Your task to perform on an android device: Add "amazon basics triple a" to the cart on walmart.com Image 0: 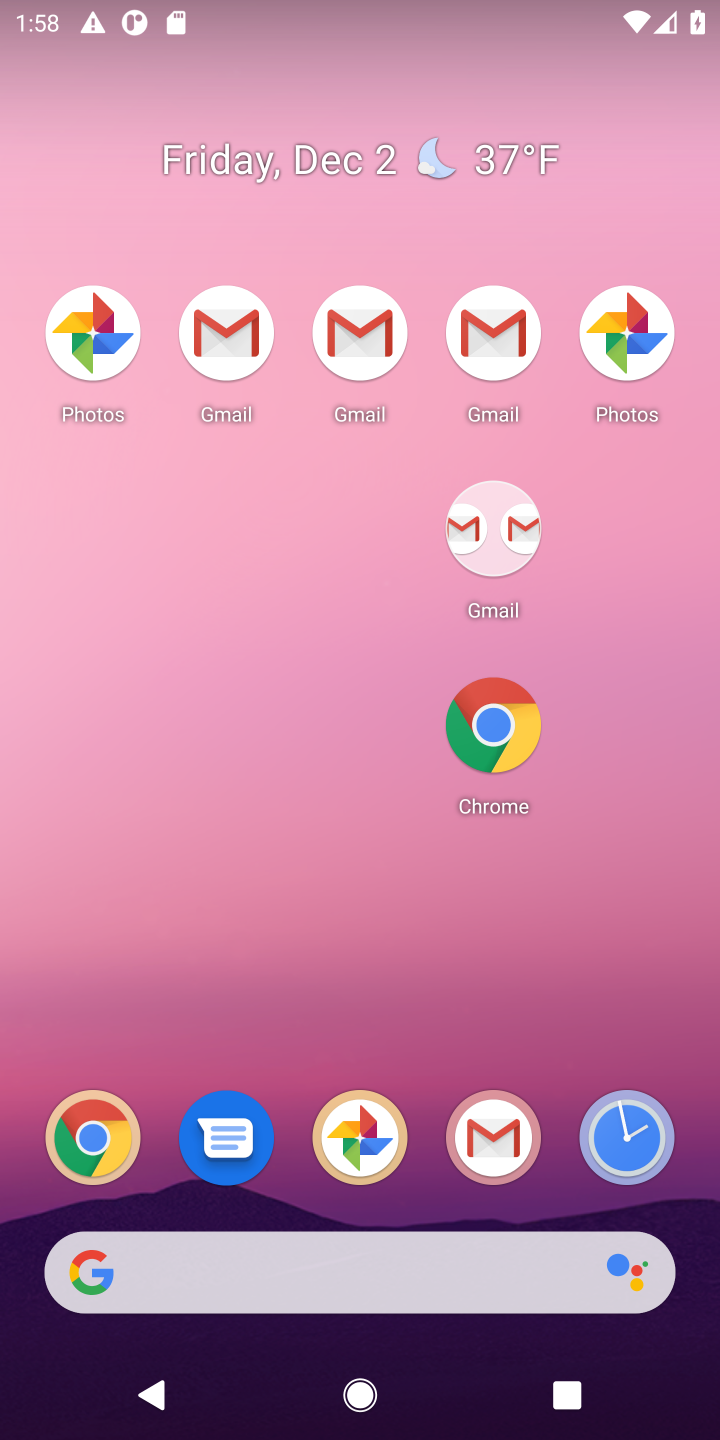
Step 0: click (324, 1095)
Your task to perform on an android device: Add "amazon basics triple a" to the cart on walmart.com Image 1: 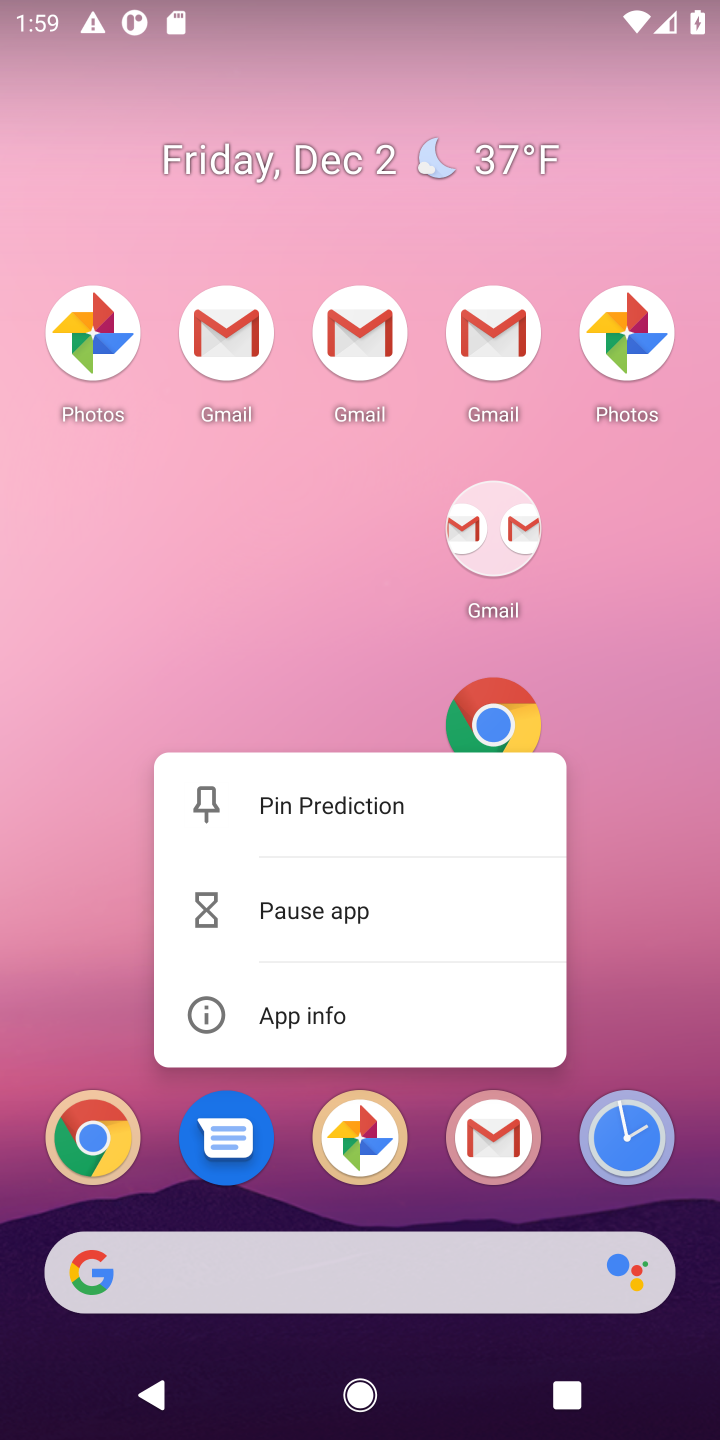
Step 1: click (95, 721)
Your task to perform on an android device: Add "amazon basics triple a" to the cart on walmart.com Image 2: 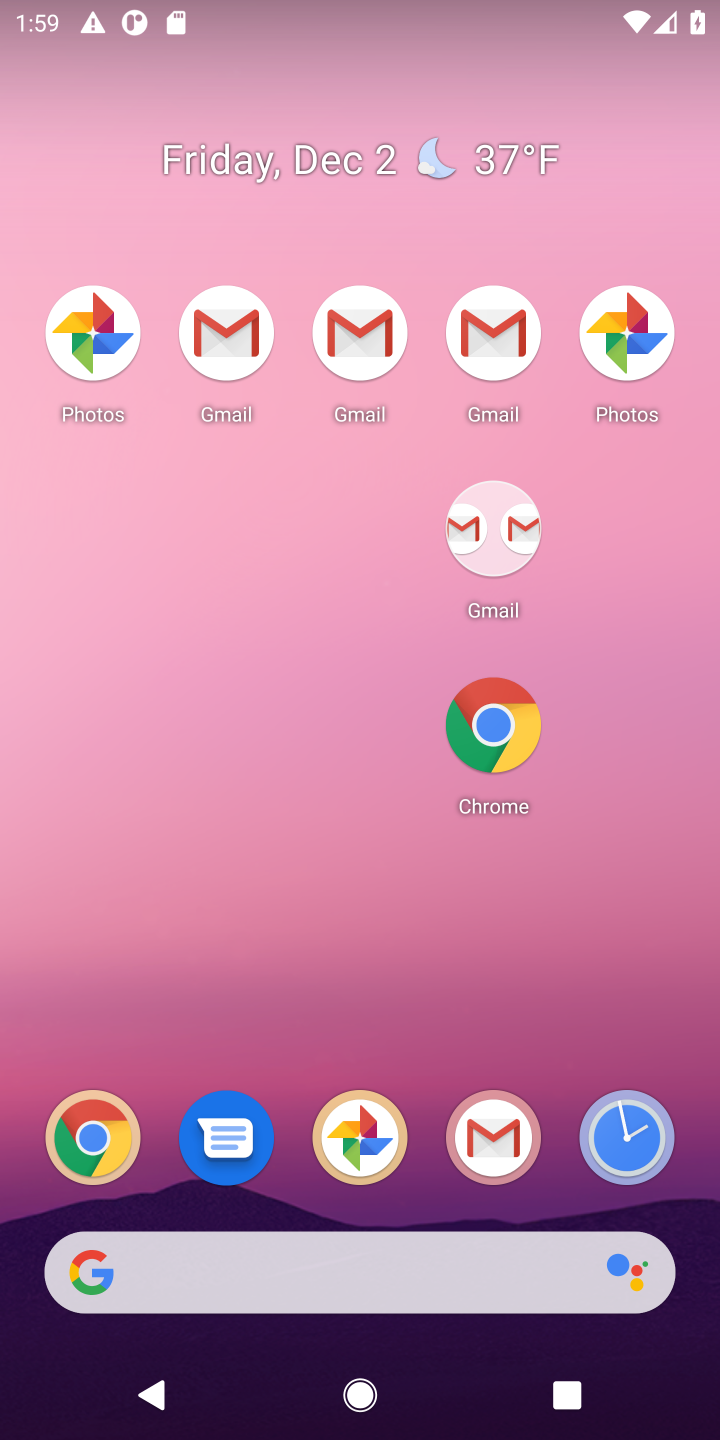
Step 2: drag from (217, 956) to (299, 261)
Your task to perform on an android device: Add "amazon basics triple a" to the cart on walmart.com Image 3: 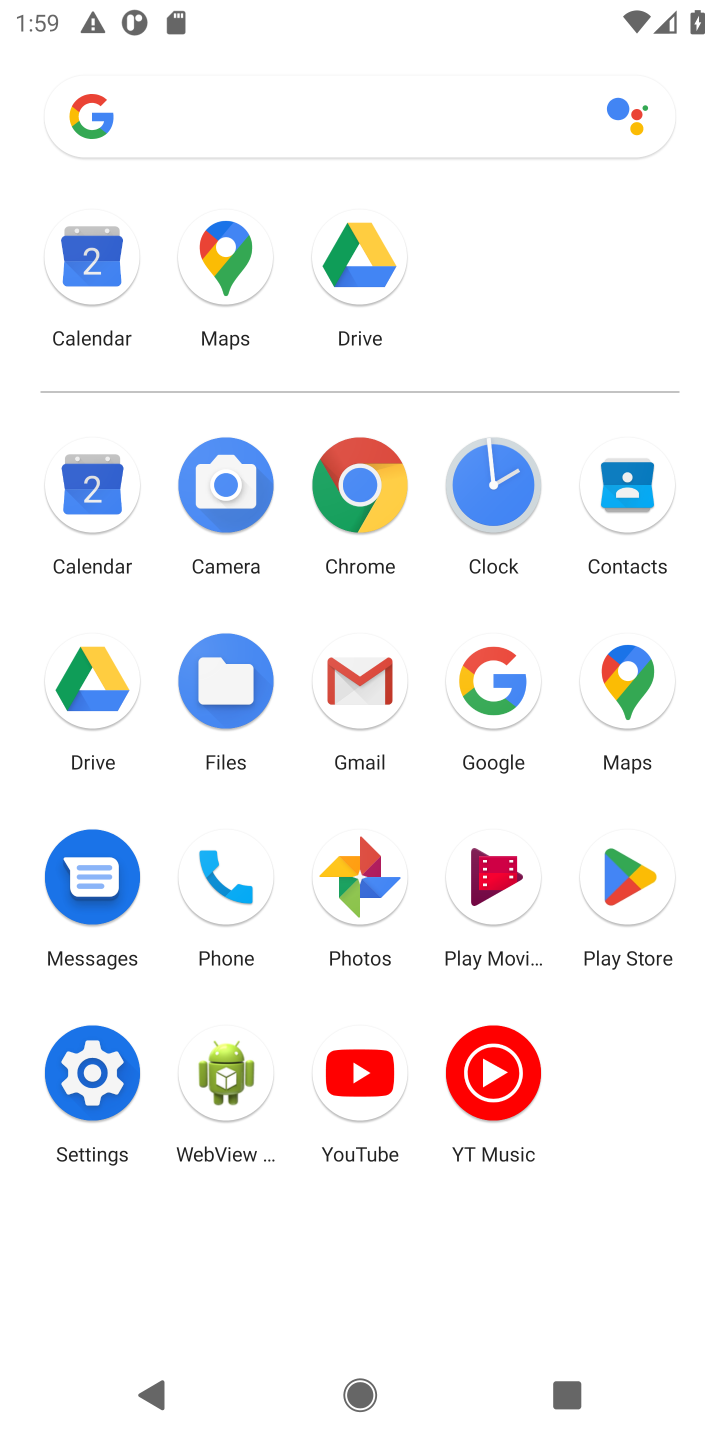
Step 3: click (481, 693)
Your task to perform on an android device: Add "amazon basics triple a" to the cart on walmart.com Image 4: 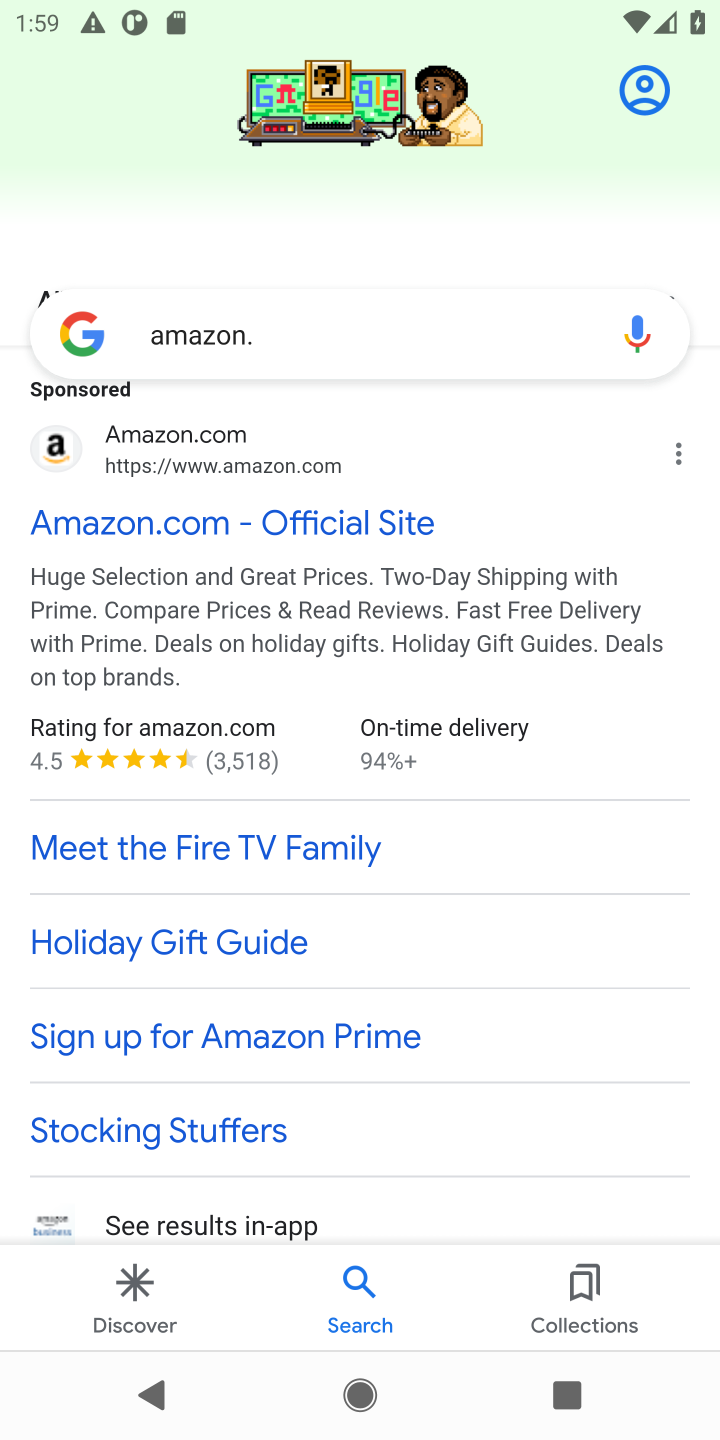
Step 4: click (390, 359)
Your task to perform on an android device: Add "amazon basics triple a" to the cart on walmart.com Image 5: 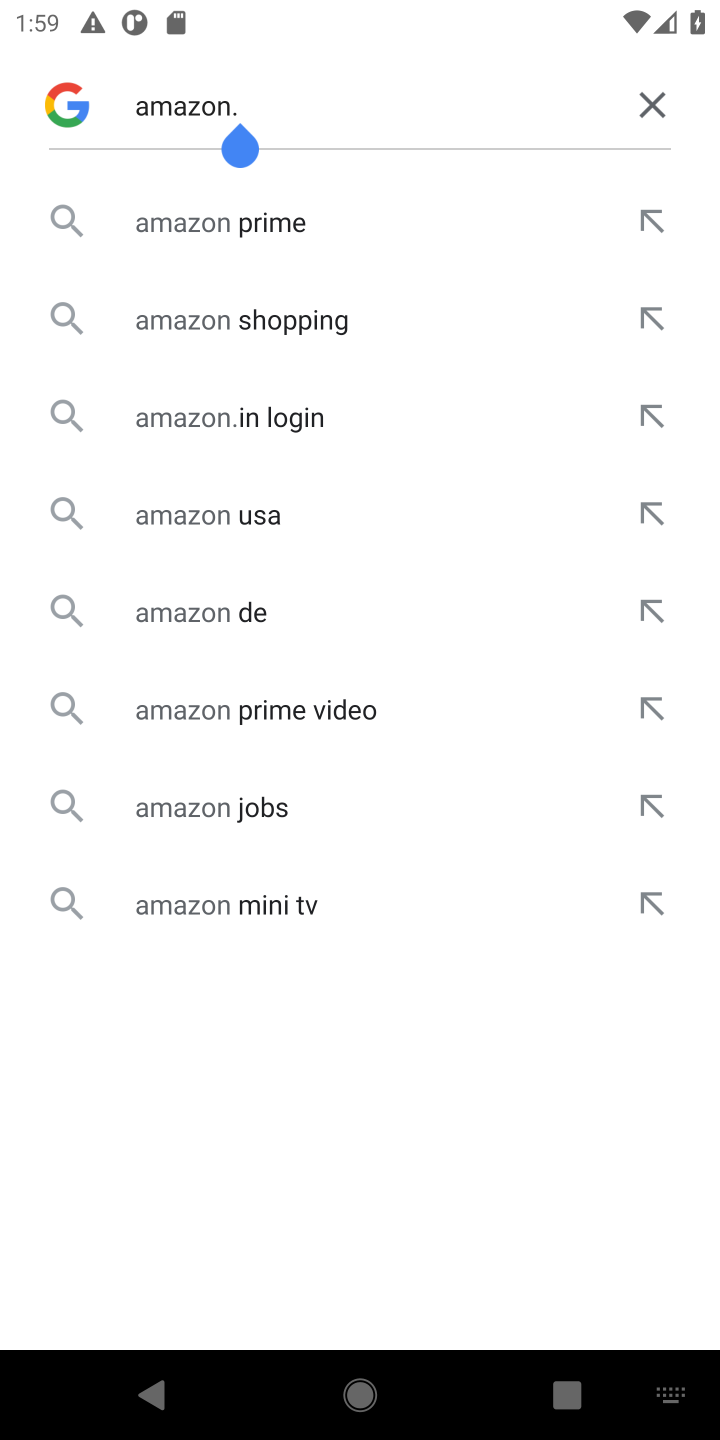
Step 5: click (654, 97)
Your task to perform on an android device: Add "amazon basics triple a" to the cart on walmart.com Image 6: 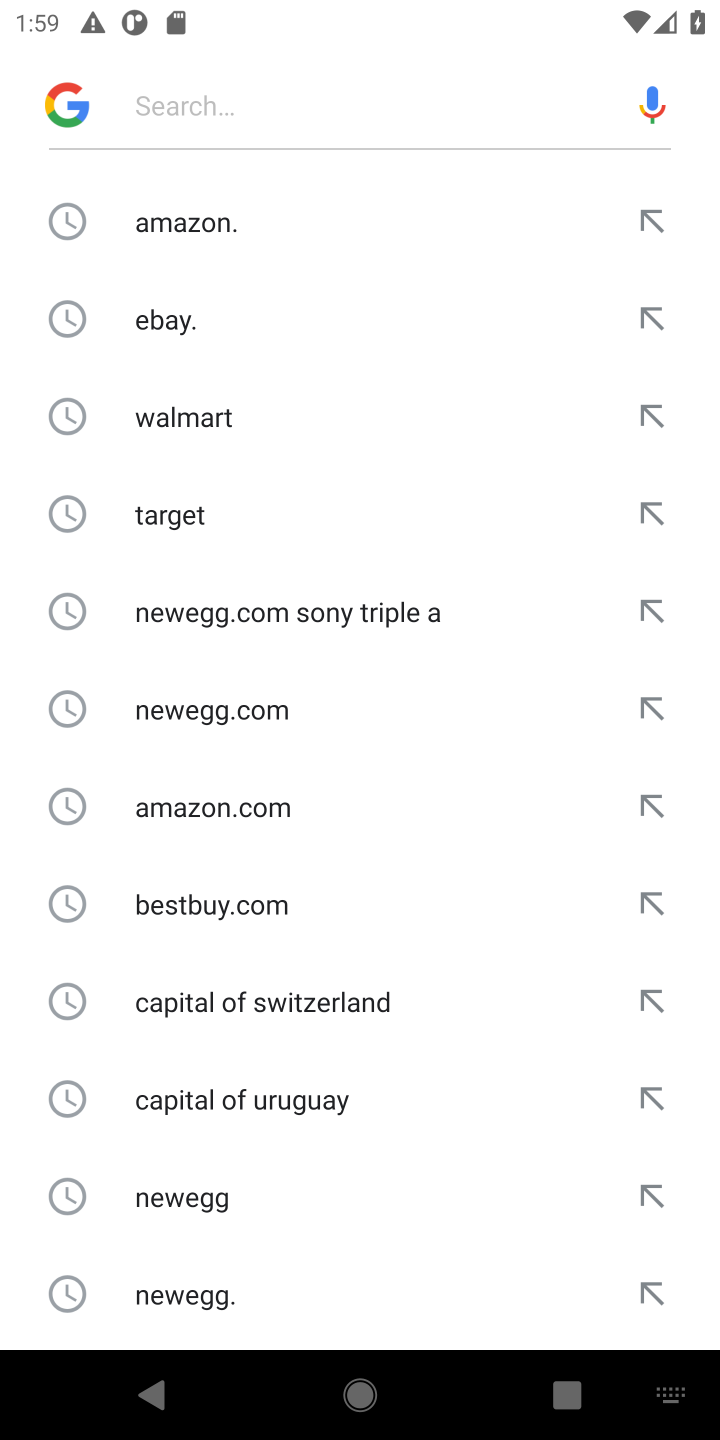
Step 6: type "walmart.com"
Your task to perform on an android device: Add "amazon basics triple a" to the cart on walmart.com Image 7: 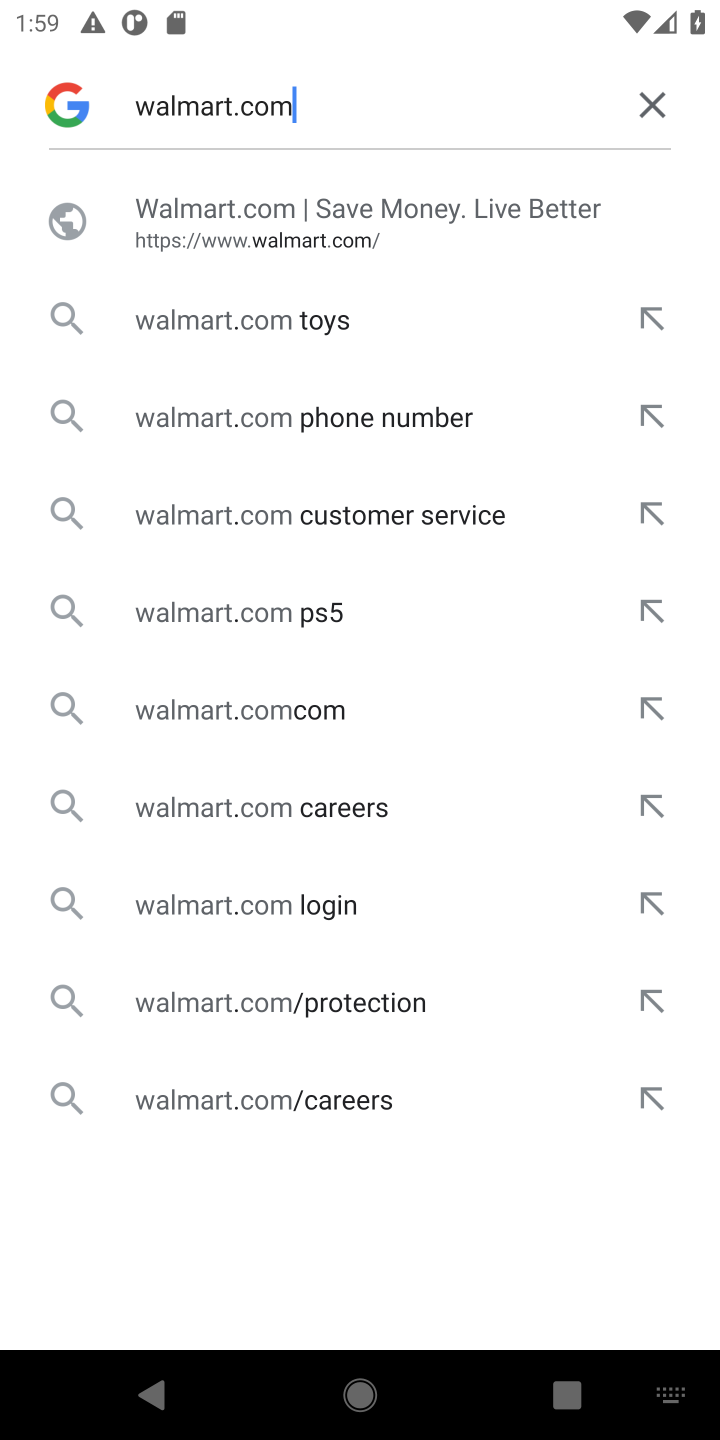
Step 7: click (343, 224)
Your task to perform on an android device: Add "amazon basics triple a" to the cart on walmart.com Image 8: 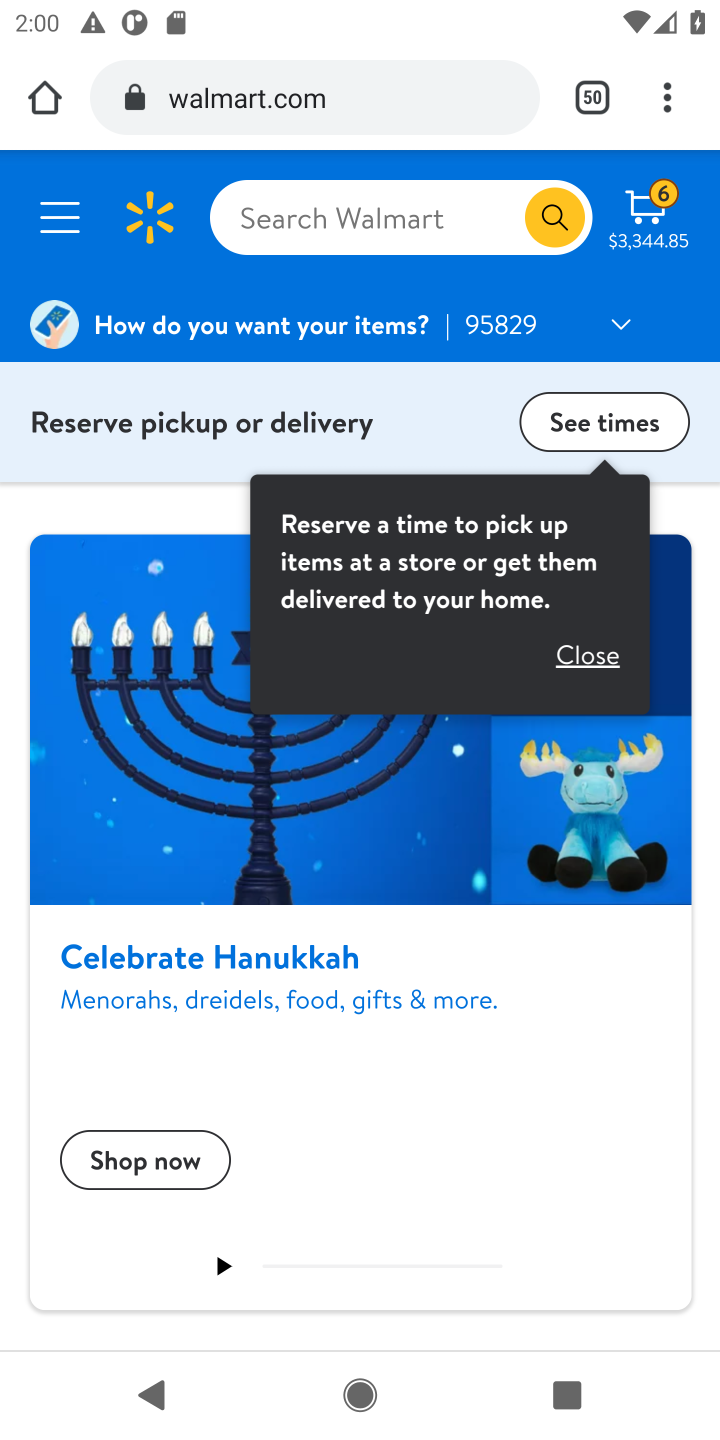
Step 8: click (456, 230)
Your task to perform on an android device: Add "amazon basics triple a" to the cart on walmart.com Image 9: 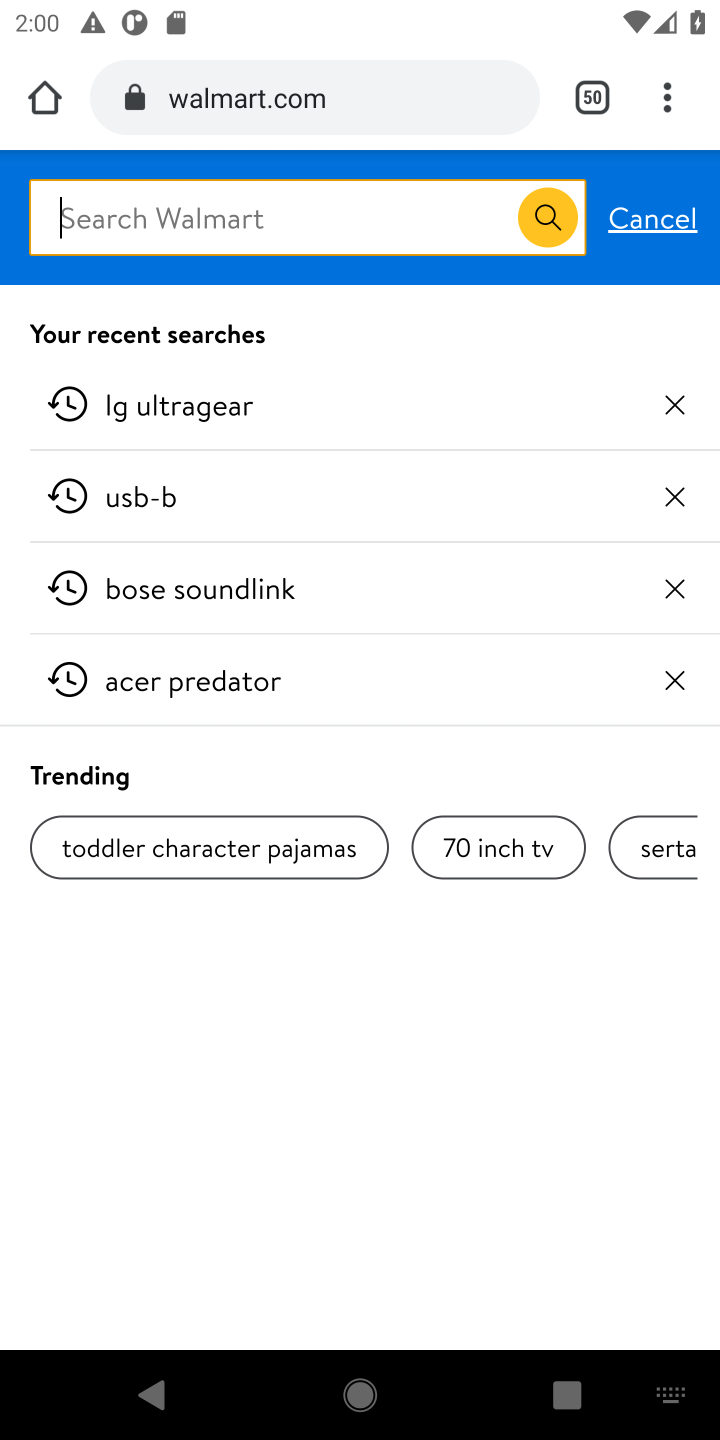
Step 9: type "amazon basics triple a"
Your task to perform on an android device: Add "amazon basics triple a" to the cart on walmart.com Image 10: 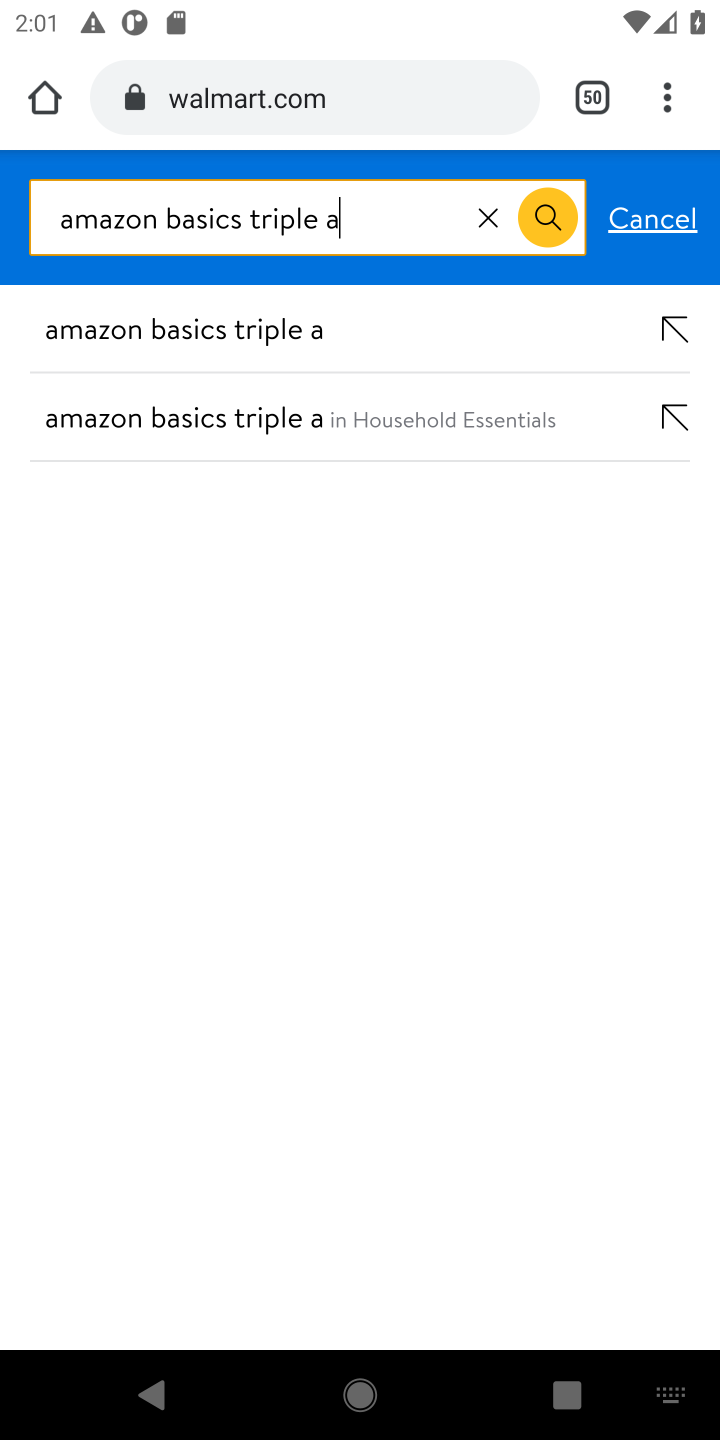
Step 10: click (314, 320)
Your task to perform on an android device: Add "amazon basics triple a" to the cart on walmart.com Image 11: 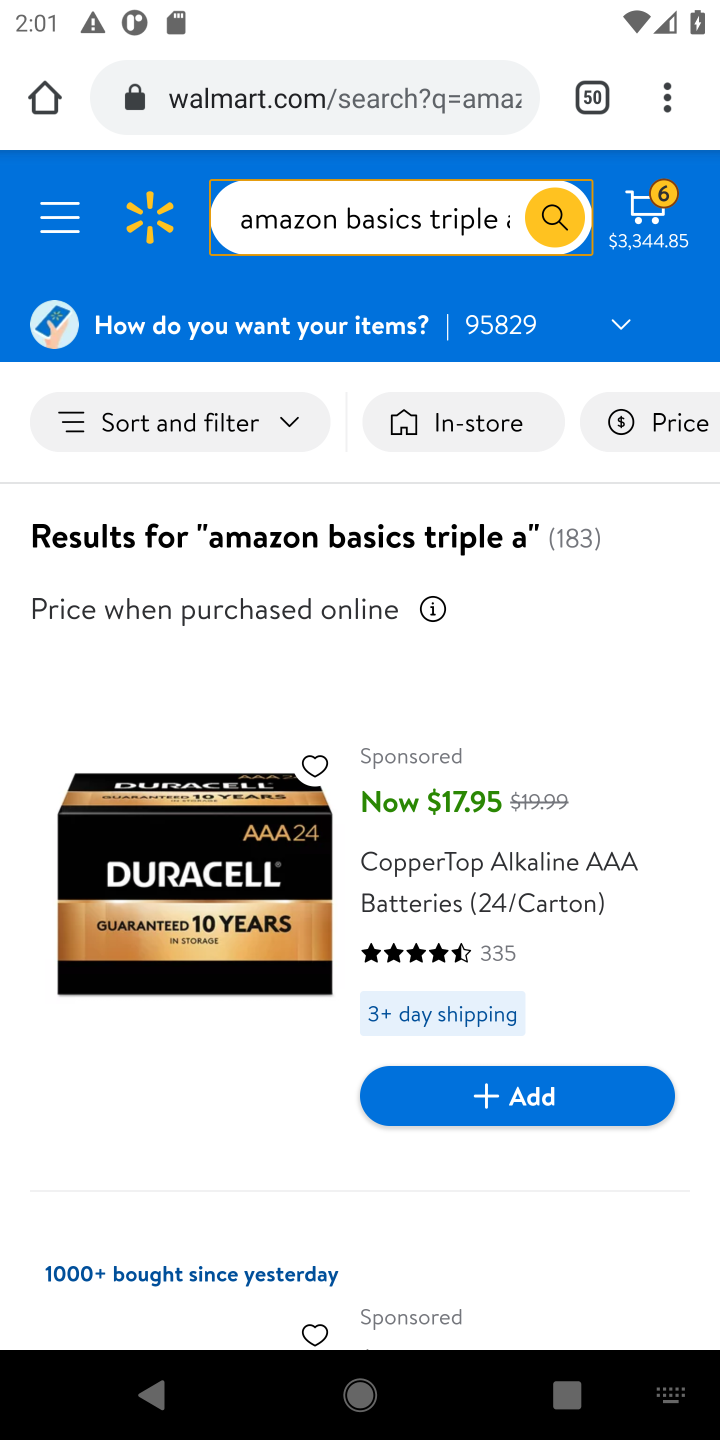
Step 11: click (530, 1098)
Your task to perform on an android device: Add "amazon basics triple a" to the cart on walmart.com Image 12: 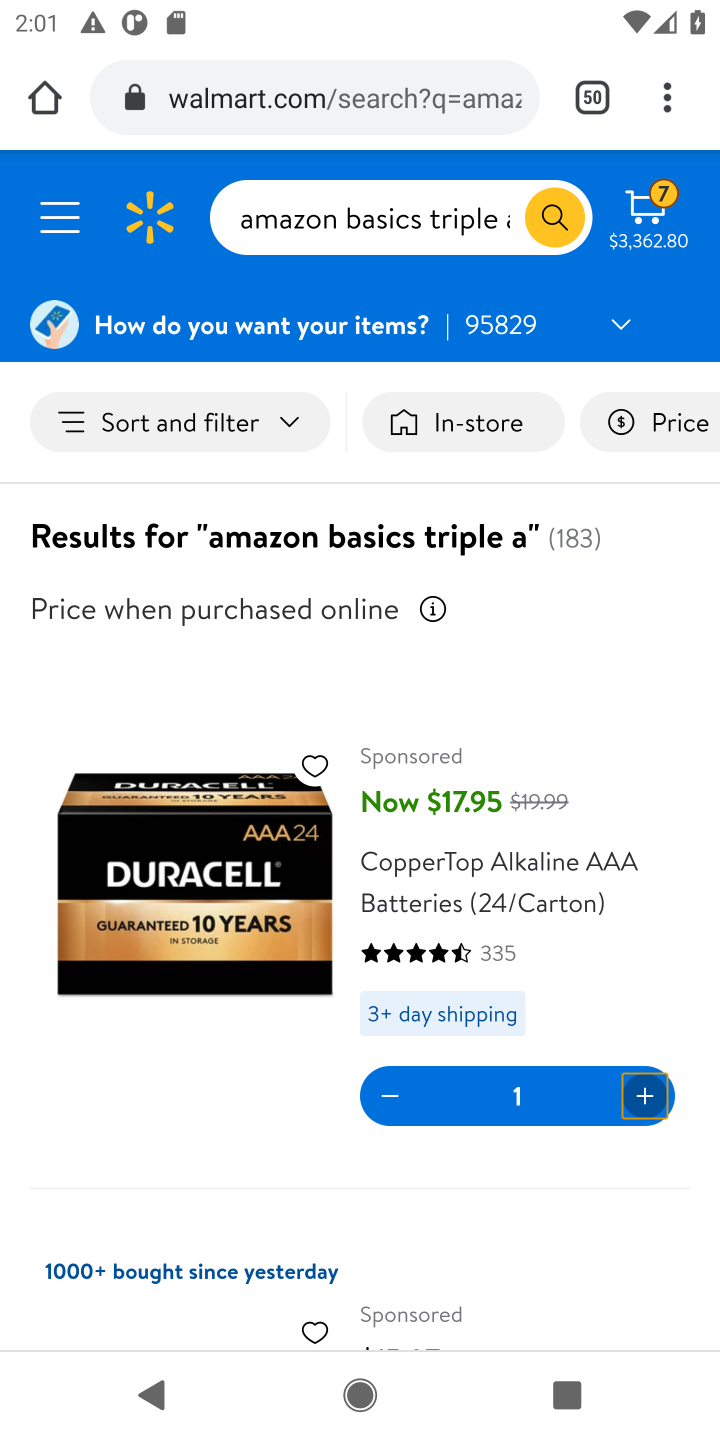
Step 12: task complete